Your task to perform on an android device: check data usage Image 0: 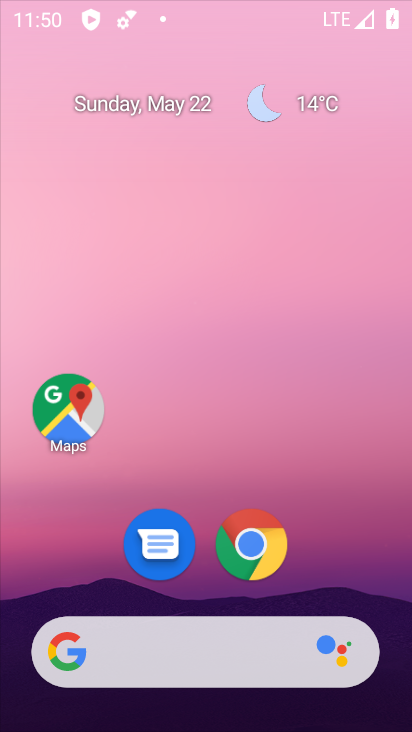
Step 0: drag from (307, 576) to (268, 147)
Your task to perform on an android device: check data usage Image 1: 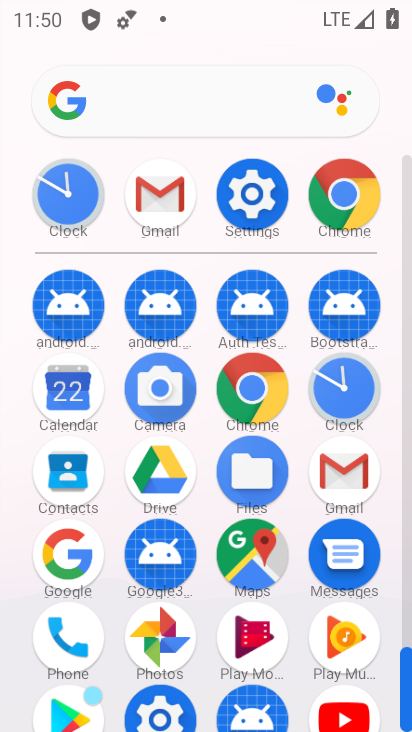
Step 1: press home button
Your task to perform on an android device: check data usage Image 2: 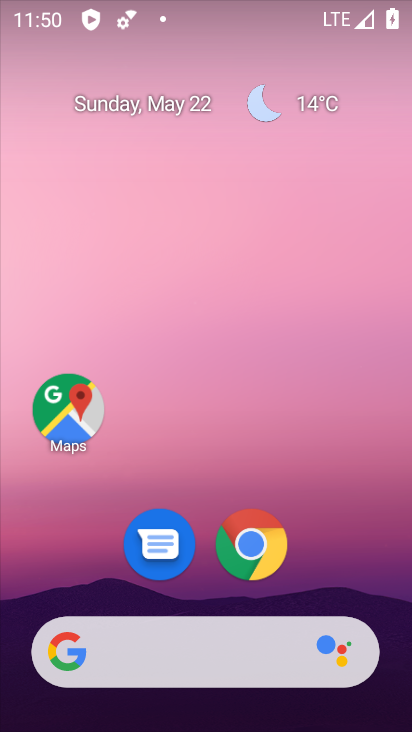
Step 2: drag from (230, 581) to (220, 170)
Your task to perform on an android device: check data usage Image 3: 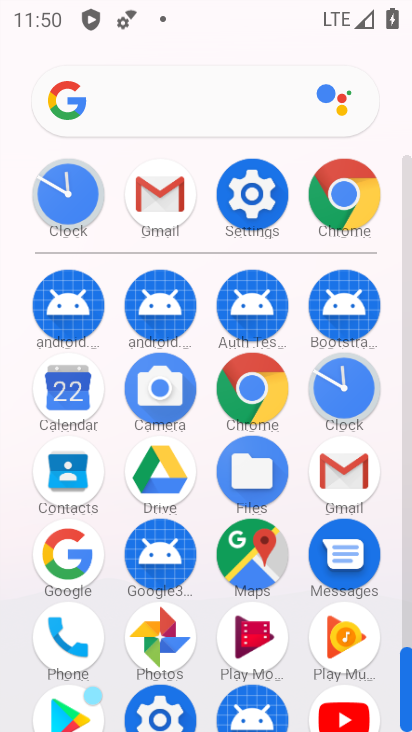
Step 3: drag from (206, 623) to (205, 373)
Your task to perform on an android device: check data usage Image 4: 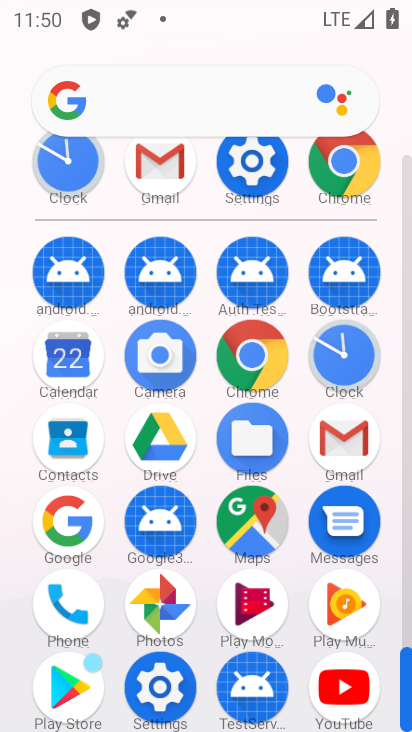
Step 4: drag from (207, 306) to (221, 573)
Your task to perform on an android device: check data usage Image 5: 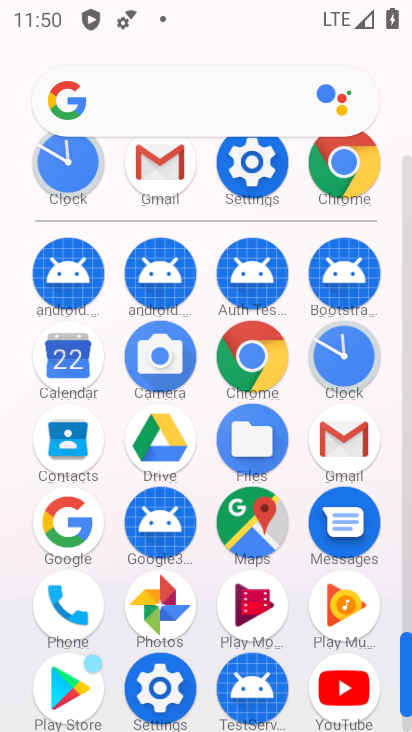
Step 5: drag from (235, 321) to (211, 545)
Your task to perform on an android device: check data usage Image 6: 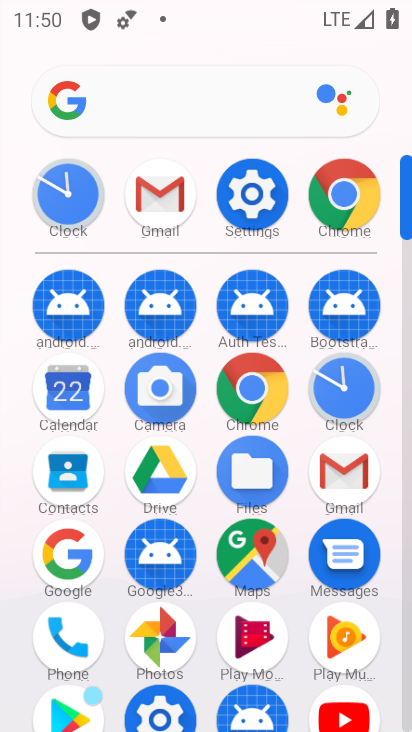
Step 6: drag from (199, 572) to (199, 232)
Your task to perform on an android device: check data usage Image 7: 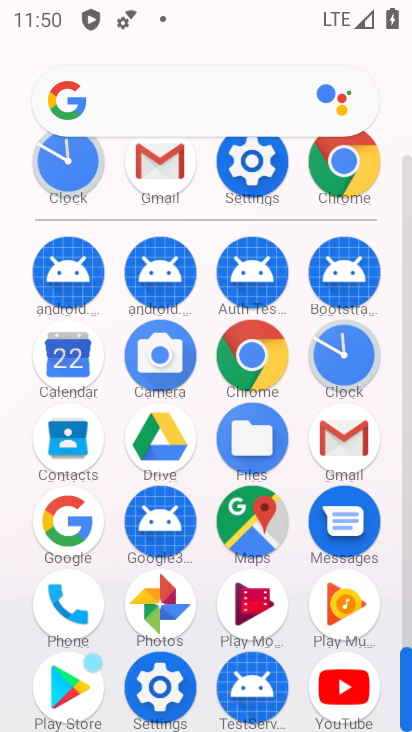
Step 7: drag from (206, 265) to (209, 528)
Your task to perform on an android device: check data usage Image 8: 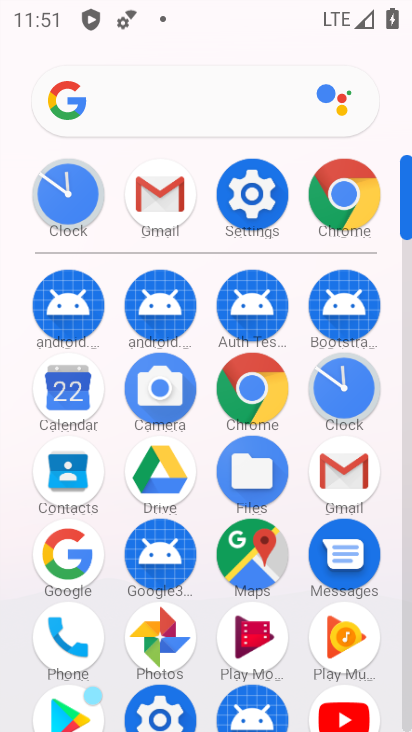
Step 8: click (163, 721)
Your task to perform on an android device: check data usage Image 9: 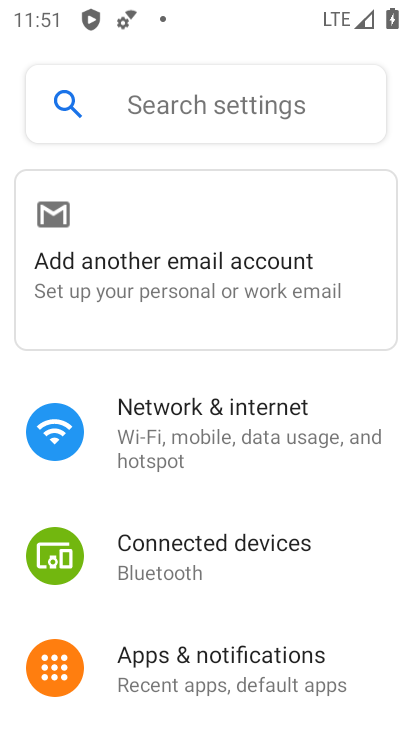
Step 9: click (190, 436)
Your task to perform on an android device: check data usage Image 10: 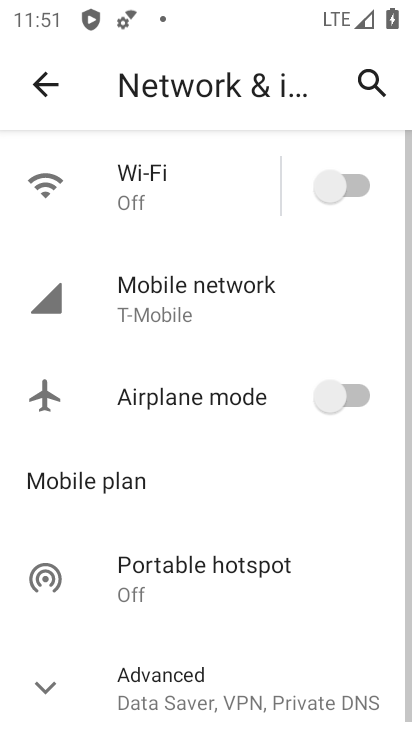
Step 10: click (150, 286)
Your task to perform on an android device: check data usage Image 11: 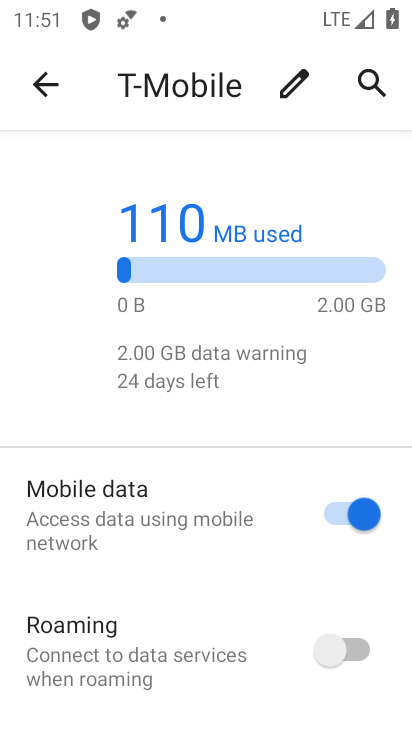
Step 11: task complete